Your task to perform on an android device: turn off priority inbox in the gmail app Image 0: 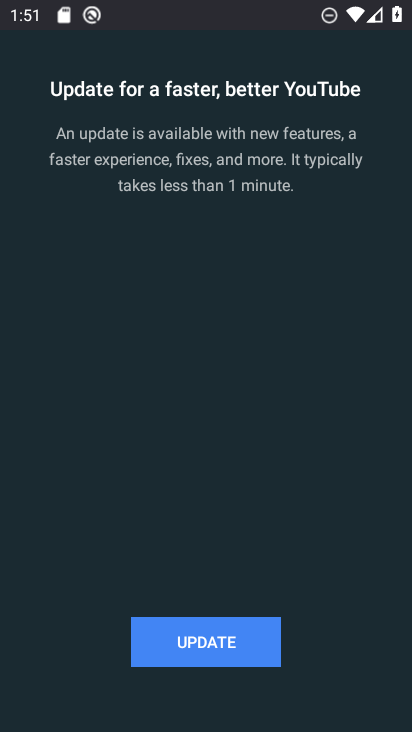
Step 0: press home button
Your task to perform on an android device: turn off priority inbox in the gmail app Image 1: 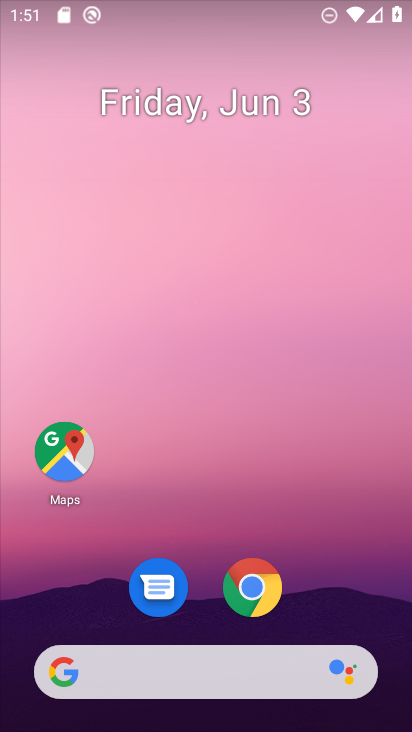
Step 1: drag from (300, 591) to (302, 23)
Your task to perform on an android device: turn off priority inbox in the gmail app Image 2: 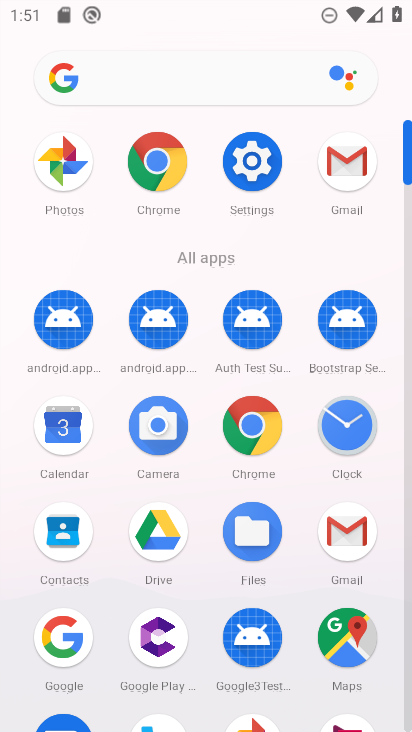
Step 2: click (348, 168)
Your task to perform on an android device: turn off priority inbox in the gmail app Image 3: 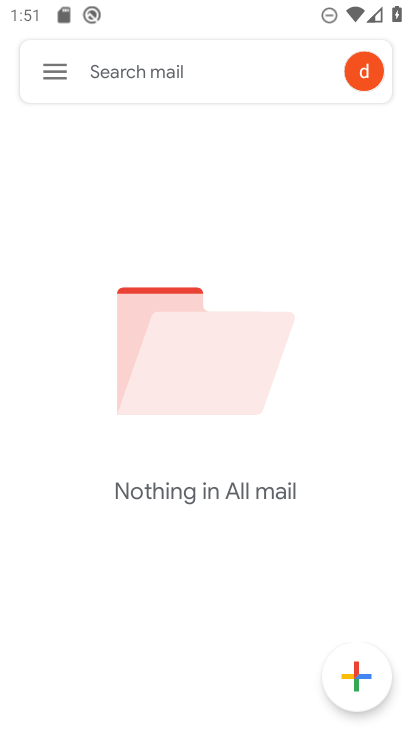
Step 3: click (54, 64)
Your task to perform on an android device: turn off priority inbox in the gmail app Image 4: 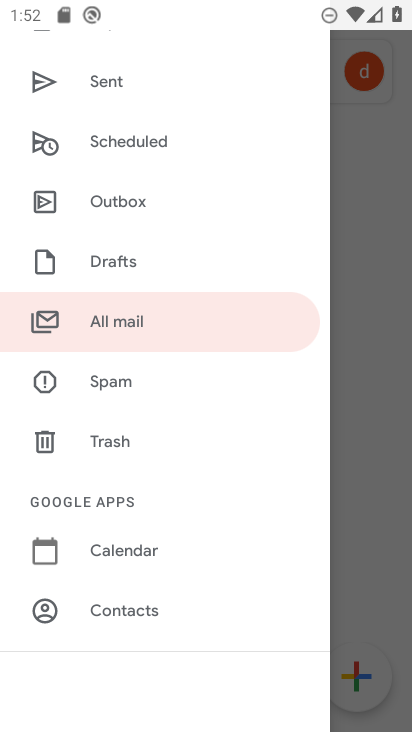
Step 4: drag from (176, 605) to (210, 257)
Your task to perform on an android device: turn off priority inbox in the gmail app Image 5: 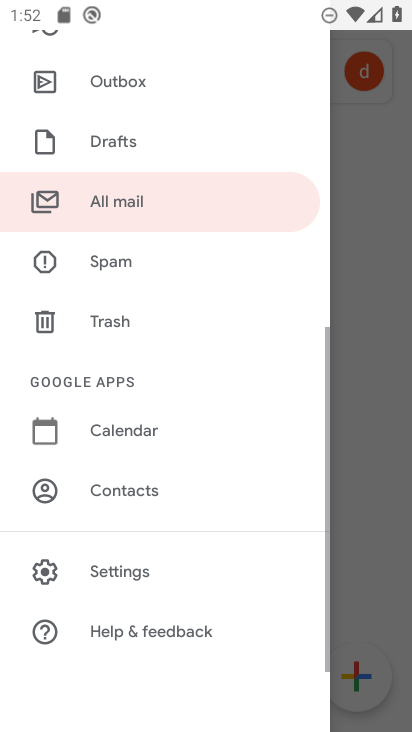
Step 5: click (124, 576)
Your task to perform on an android device: turn off priority inbox in the gmail app Image 6: 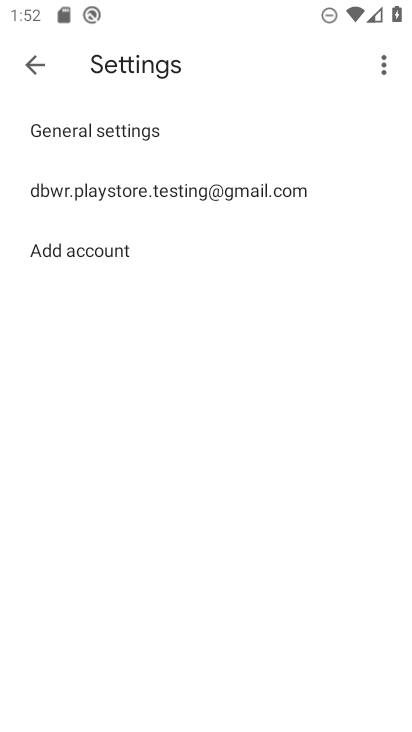
Step 6: click (116, 186)
Your task to perform on an android device: turn off priority inbox in the gmail app Image 7: 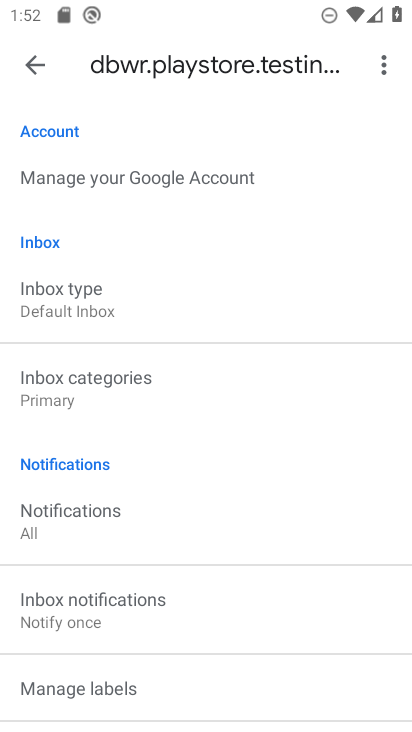
Step 7: click (59, 296)
Your task to perform on an android device: turn off priority inbox in the gmail app Image 8: 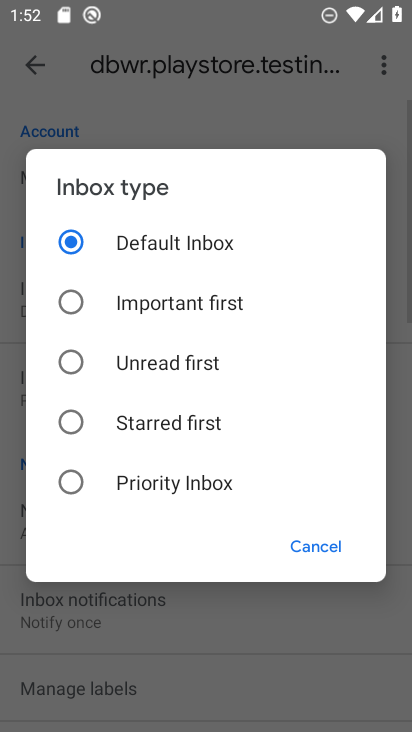
Step 8: click (161, 244)
Your task to perform on an android device: turn off priority inbox in the gmail app Image 9: 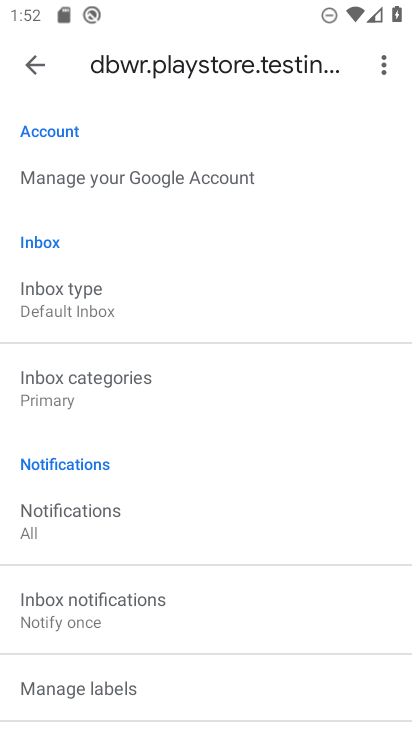
Step 9: task complete